Your task to perform on an android device: Open Yahoo.com Image 0: 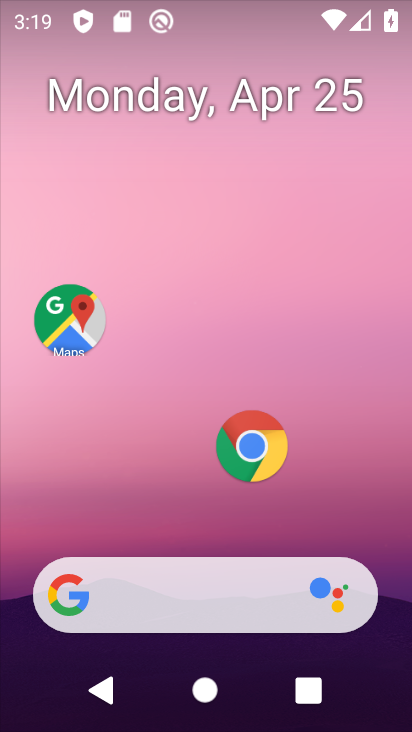
Step 0: click (253, 454)
Your task to perform on an android device: Open Yahoo.com Image 1: 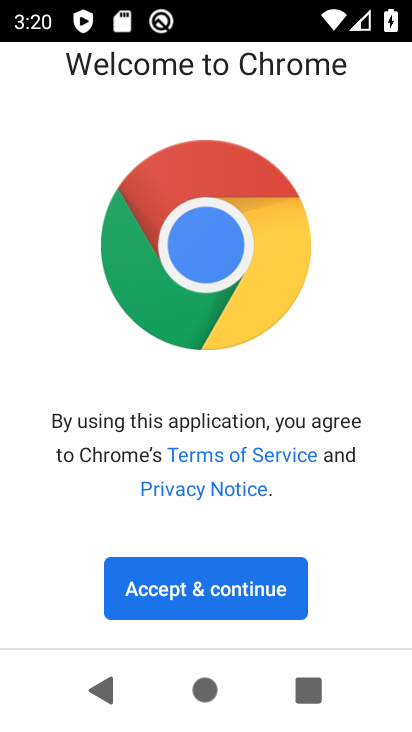
Step 1: click (207, 574)
Your task to perform on an android device: Open Yahoo.com Image 2: 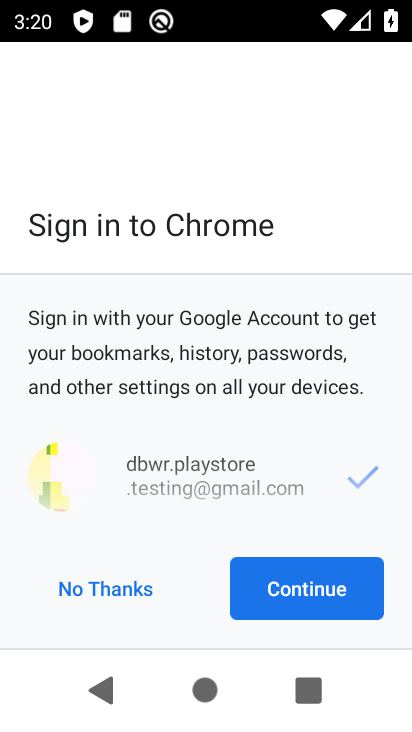
Step 2: click (290, 591)
Your task to perform on an android device: Open Yahoo.com Image 3: 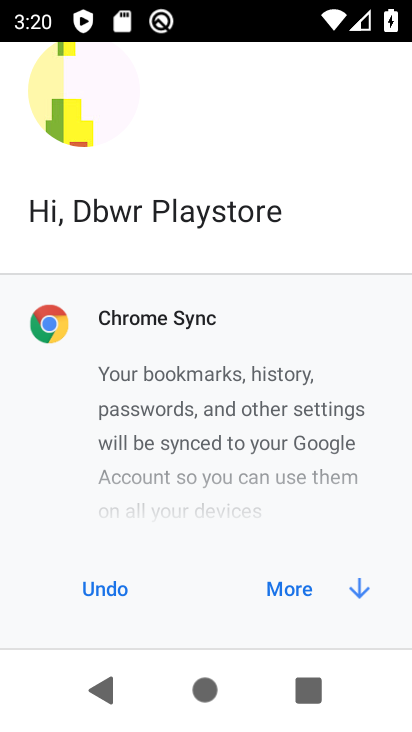
Step 3: click (290, 591)
Your task to perform on an android device: Open Yahoo.com Image 4: 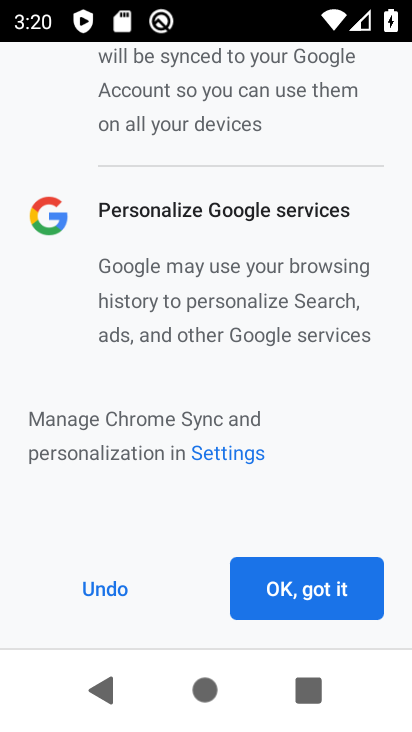
Step 4: click (290, 591)
Your task to perform on an android device: Open Yahoo.com Image 5: 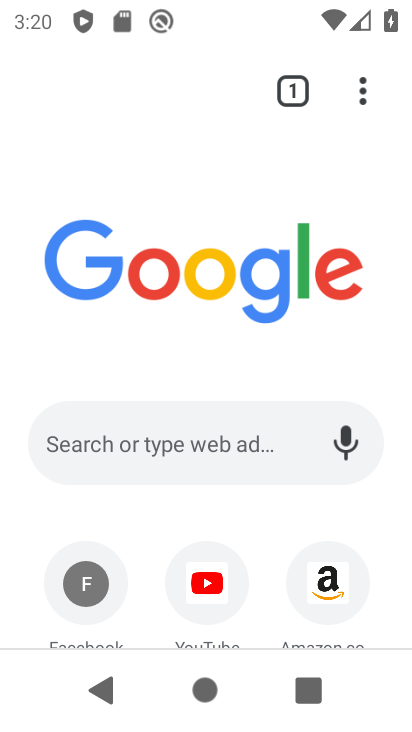
Step 5: drag from (229, 360) to (239, 158)
Your task to perform on an android device: Open Yahoo.com Image 6: 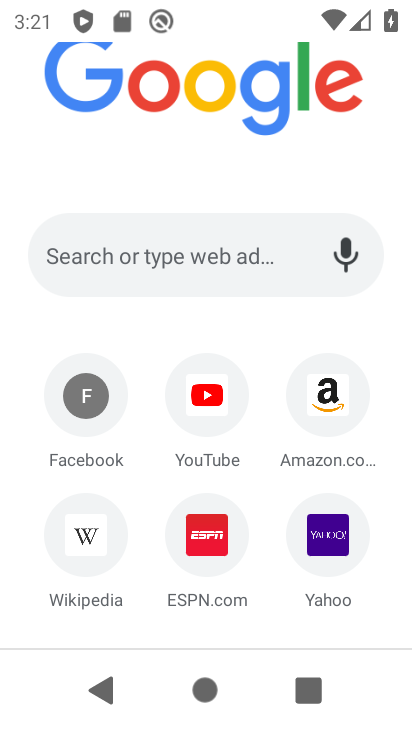
Step 6: click (316, 561)
Your task to perform on an android device: Open Yahoo.com Image 7: 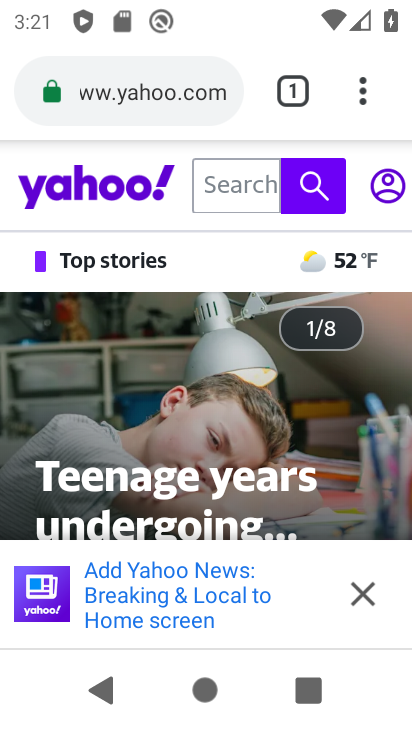
Step 7: task complete